Your task to perform on an android device: turn pop-ups off in chrome Image 0: 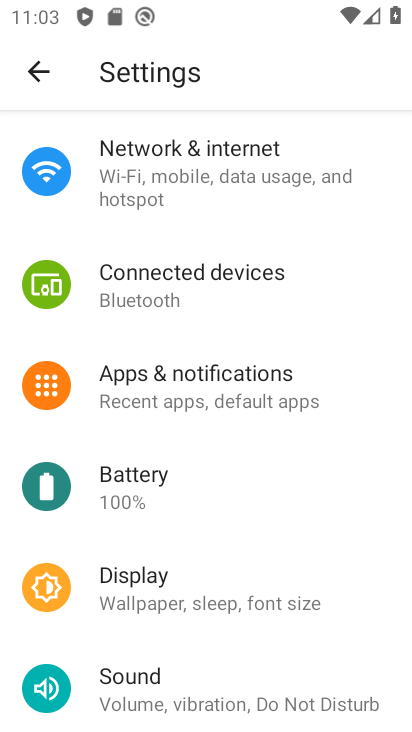
Step 0: press back button
Your task to perform on an android device: turn pop-ups off in chrome Image 1: 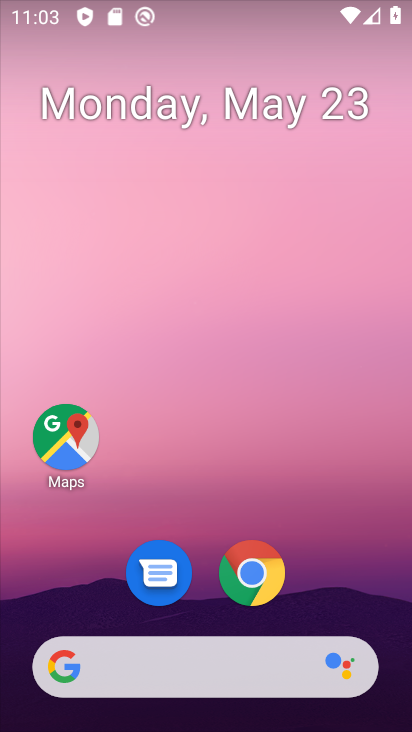
Step 1: click (252, 572)
Your task to perform on an android device: turn pop-ups off in chrome Image 2: 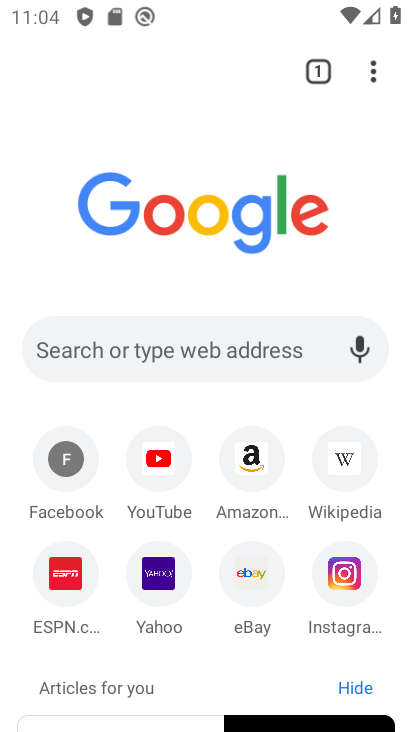
Step 2: click (376, 73)
Your task to perform on an android device: turn pop-ups off in chrome Image 3: 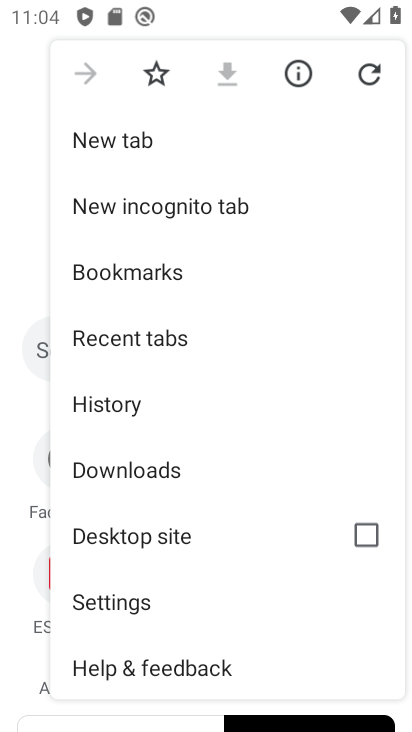
Step 3: click (122, 602)
Your task to perform on an android device: turn pop-ups off in chrome Image 4: 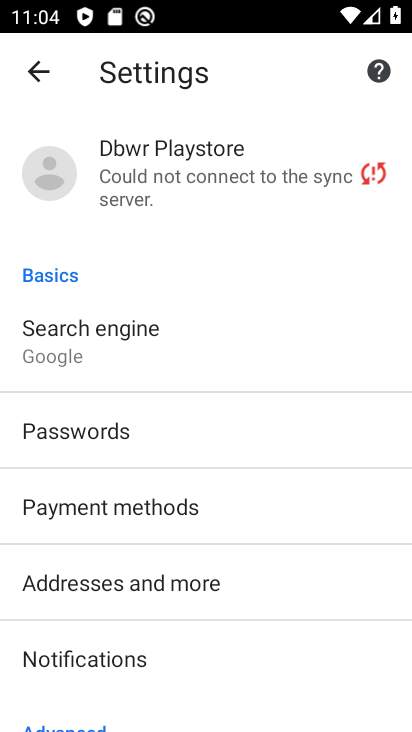
Step 4: drag from (129, 517) to (198, 423)
Your task to perform on an android device: turn pop-ups off in chrome Image 5: 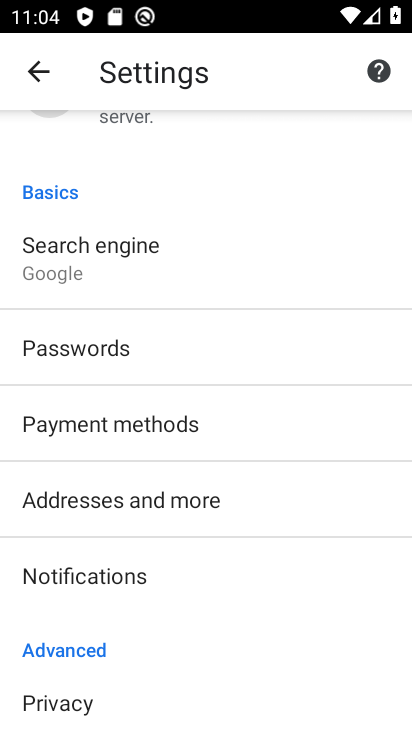
Step 5: drag from (120, 605) to (204, 482)
Your task to perform on an android device: turn pop-ups off in chrome Image 6: 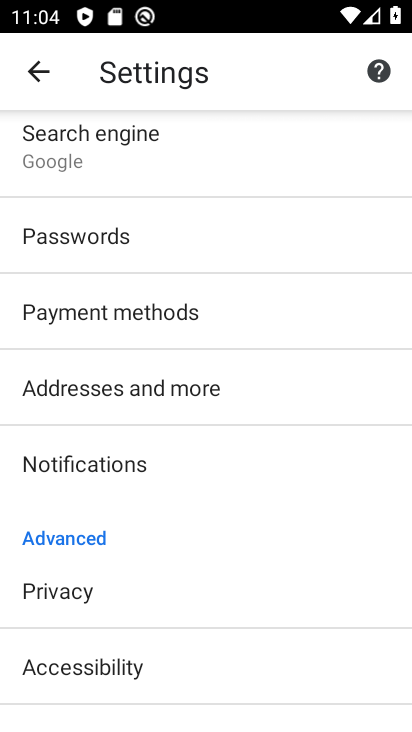
Step 6: drag from (121, 585) to (193, 495)
Your task to perform on an android device: turn pop-ups off in chrome Image 7: 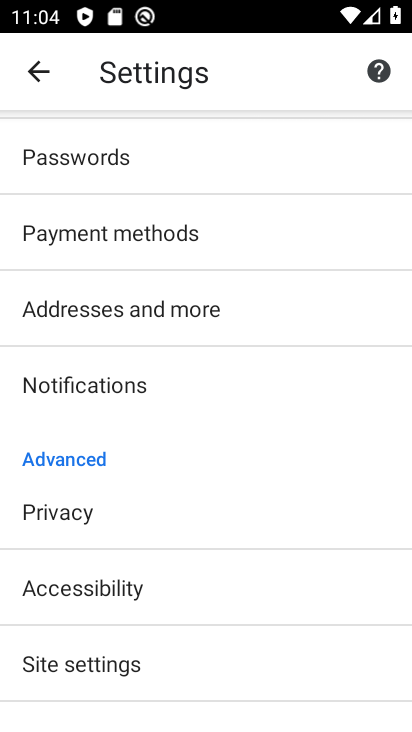
Step 7: drag from (105, 608) to (177, 514)
Your task to perform on an android device: turn pop-ups off in chrome Image 8: 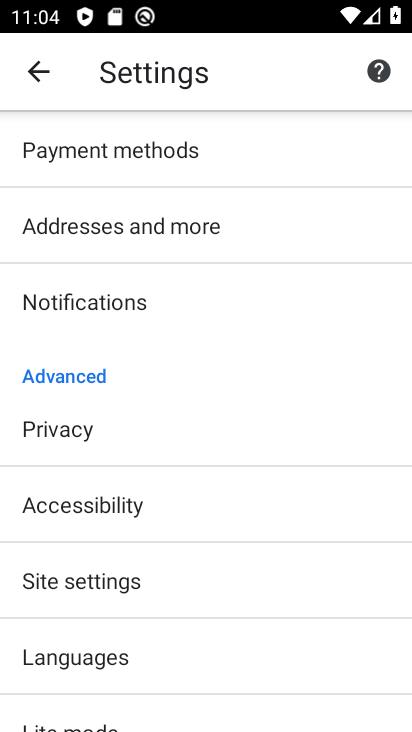
Step 8: click (83, 575)
Your task to perform on an android device: turn pop-ups off in chrome Image 9: 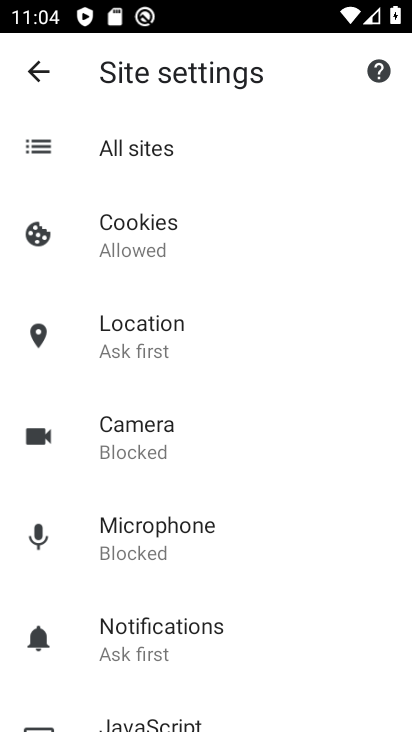
Step 9: drag from (190, 544) to (221, 457)
Your task to perform on an android device: turn pop-ups off in chrome Image 10: 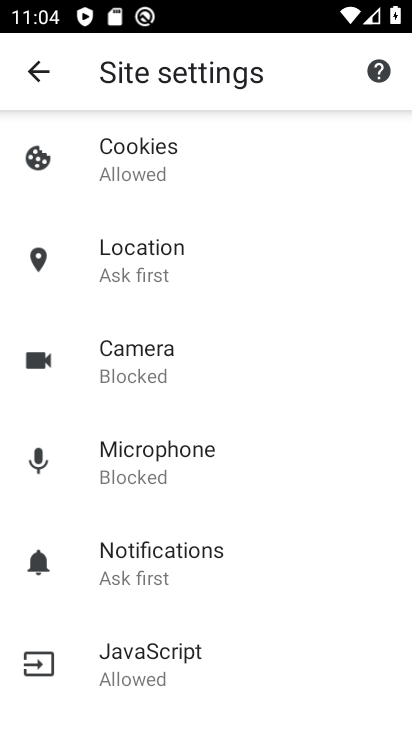
Step 10: drag from (175, 589) to (198, 457)
Your task to perform on an android device: turn pop-ups off in chrome Image 11: 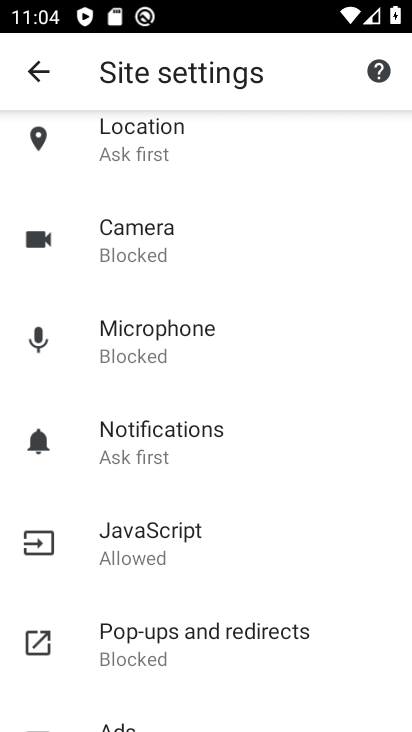
Step 11: drag from (149, 602) to (201, 505)
Your task to perform on an android device: turn pop-ups off in chrome Image 12: 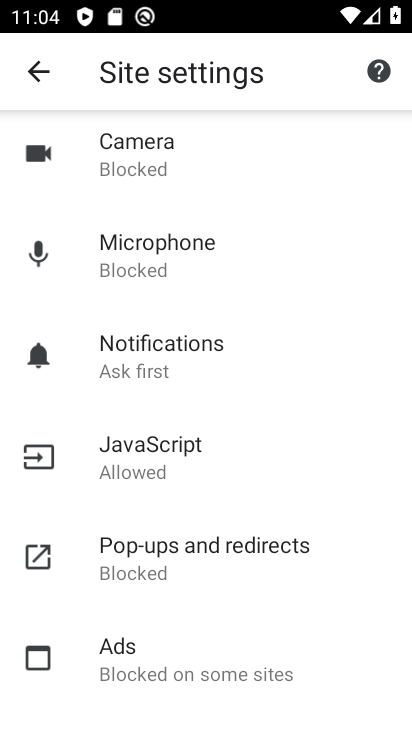
Step 12: click (174, 548)
Your task to perform on an android device: turn pop-ups off in chrome Image 13: 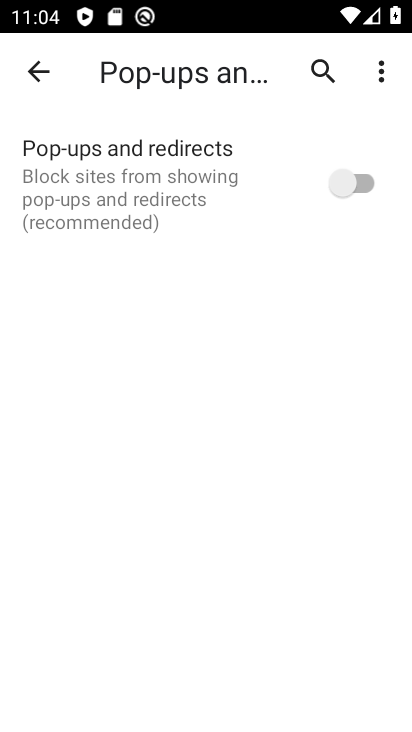
Step 13: task complete